Your task to perform on an android device: turn off smart reply in the gmail app Image 0: 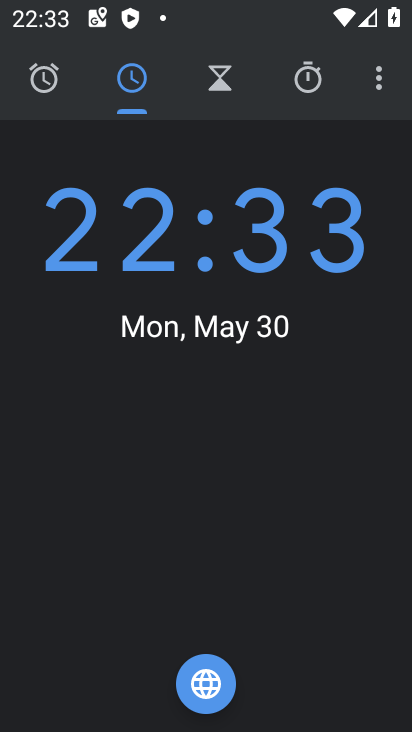
Step 0: press home button
Your task to perform on an android device: turn off smart reply in the gmail app Image 1: 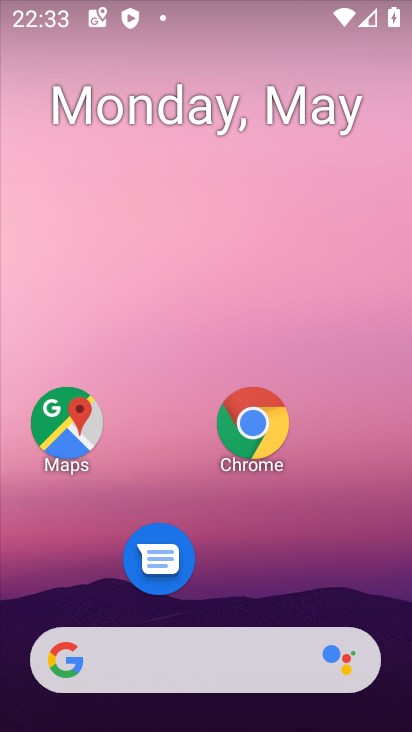
Step 1: drag from (106, 605) to (400, 17)
Your task to perform on an android device: turn off smart reply in the gmail app Image 2: 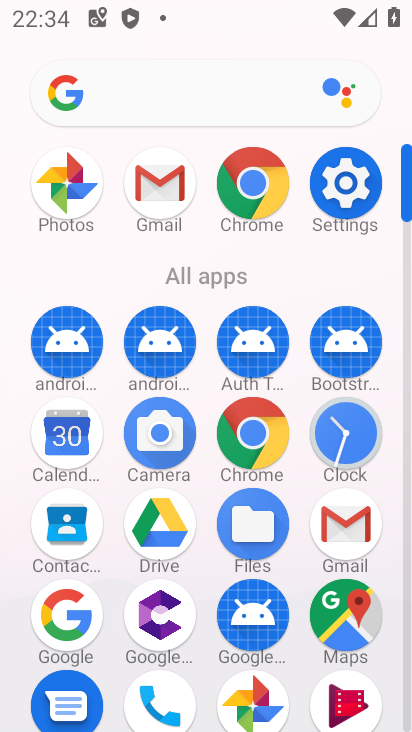
Step 2: click (154, 202)
Your task to perform on an android device: turn off smart reply in the gmail app Image 3: 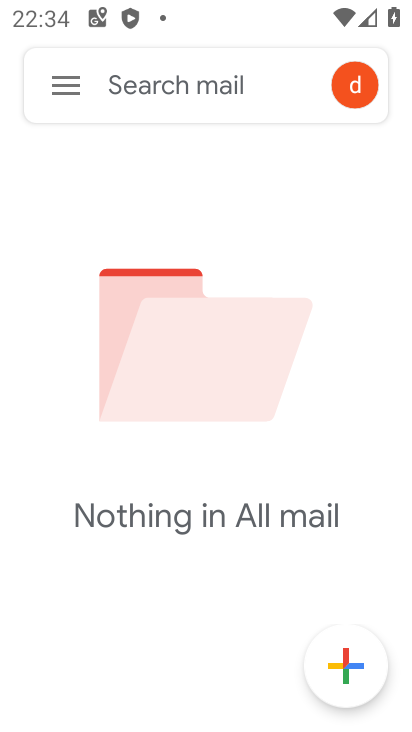
Step 3: click (63, 105)
Your task to perform on an android device: turn off smart reply in the gmail app Image 4: 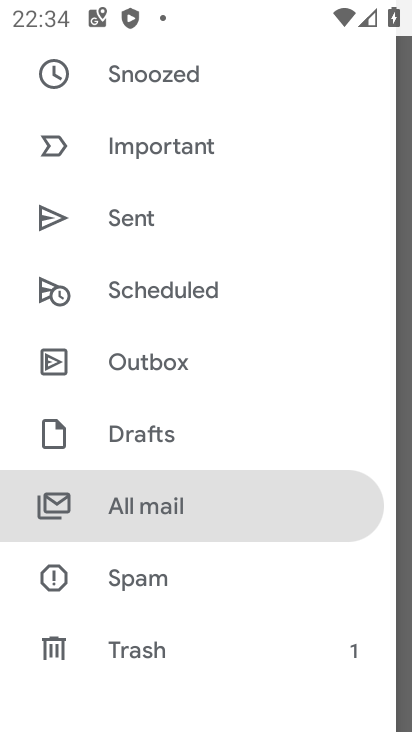
Step 4: drag from (188, 637) to (309, 63)
Your task to perform on an android device: turn off smart reply in the gmail app Image 5: 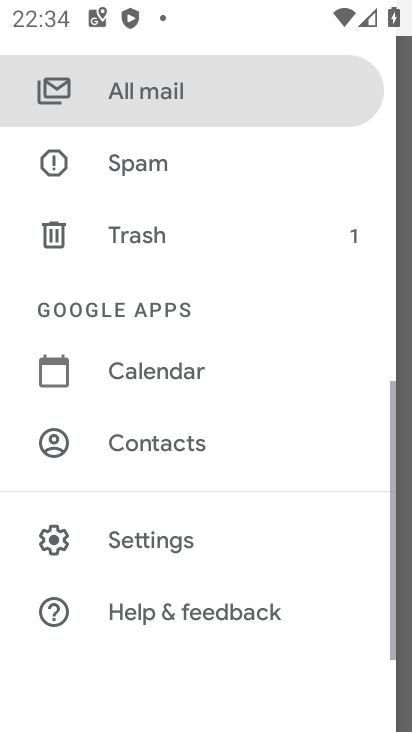
Step 5: drag from (59, 620) to (181, 204)
Your task to perform on an android device: turn off smart reply in the gmail app Image 6: 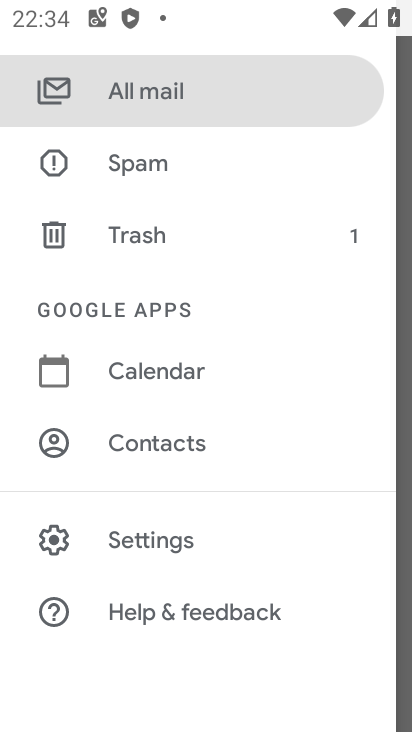
Step 6: click (150, 549)
Your task to perform on an android device: turn off smart reply in the gmail app Image 7: 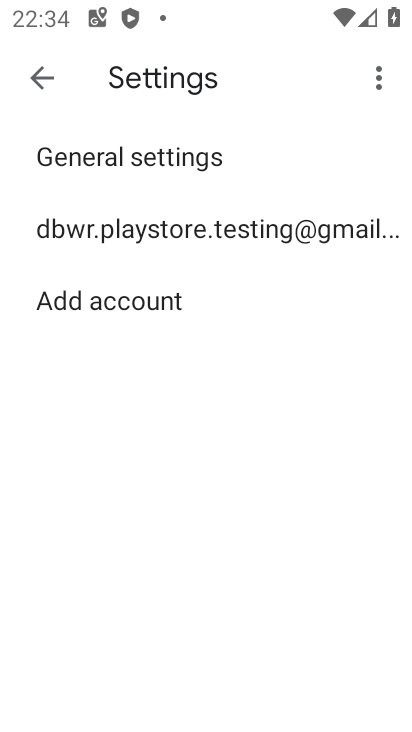
Step 7: click (280, 249)
Your task to perform on an android device: turn off smart reply in the gmail app Image 8: 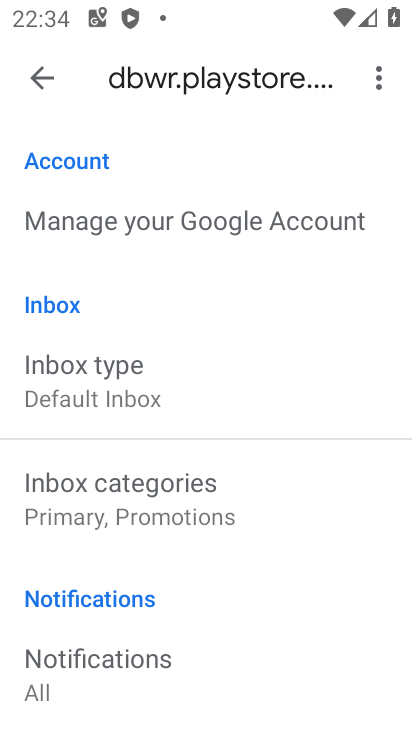
Step 8: drag from (273, 639) to (287, 178)
Your task to perform on an android device: turn off smart reply in the gmail app Image 9: 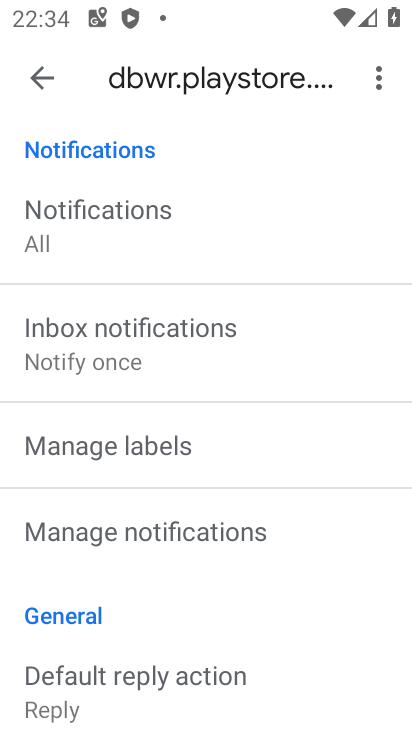
Step 9: drag from (147, 656) to (202, 122)
Your task to perform on an android device: turn off smart reply in the gmail app Image 10: 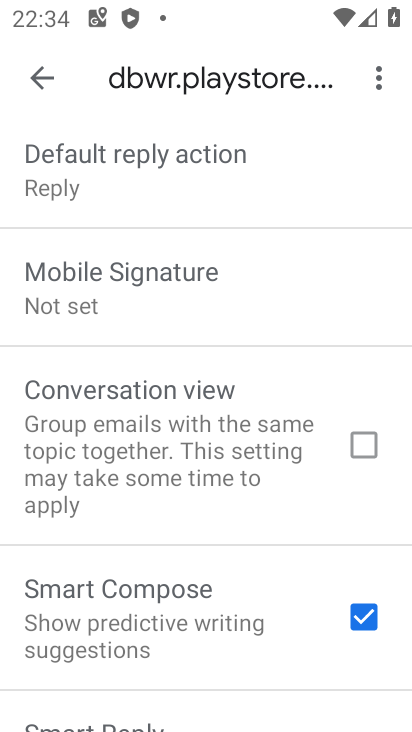
Step 10: drag from (156, 589) to (209, 203)
Your task to perform on an android device: turn off smart reply in the gmail app Image 11: 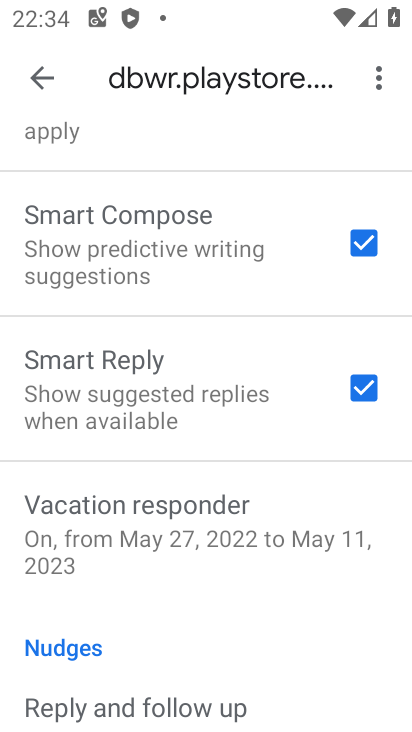
Step 11: click (364, 391)
Your task to perform on an android device: turn off smart reply in the gmail app Image 12: 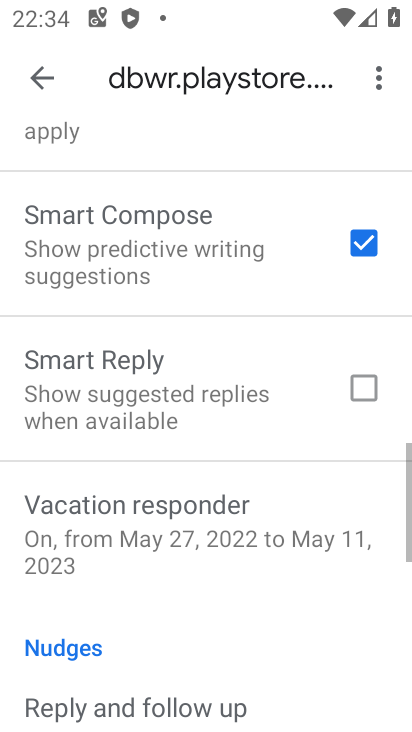
Step 12: task complete